Your task to perform on an android device: Go to Amazon Image 0: 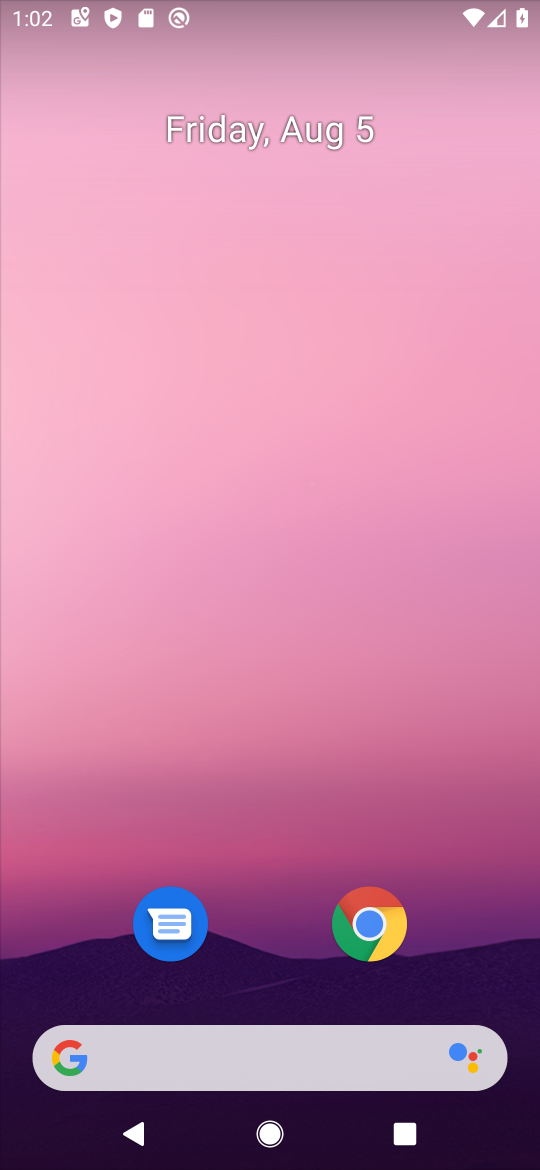
Step 0: press home button
Your task to perform on an android device: Go to Amazon Image 1: 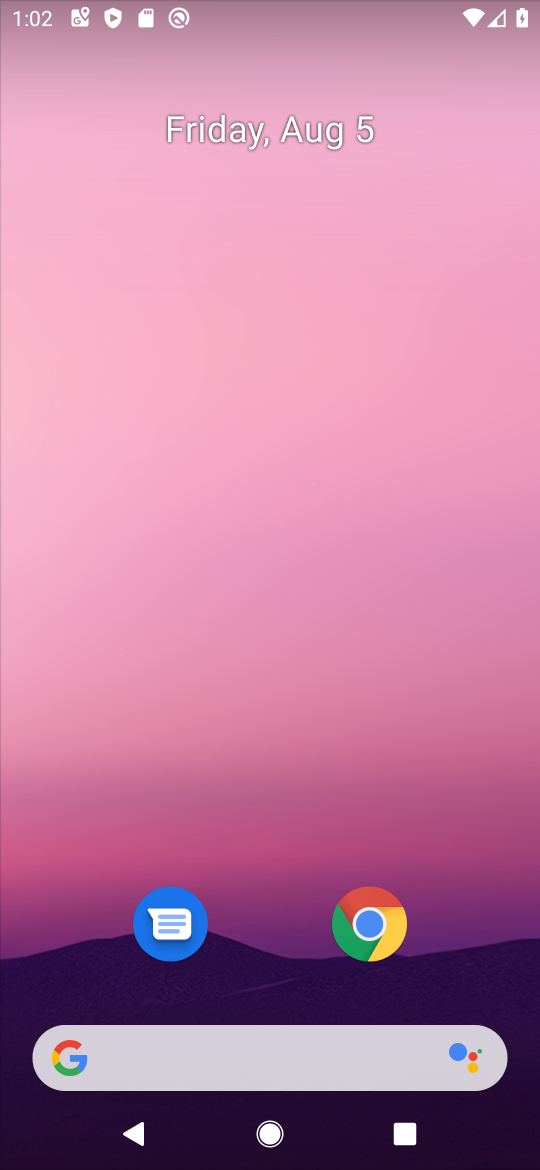
Step 1: click (375, 926)
Your task to perform on an android device: Go to Amazon Image 2: 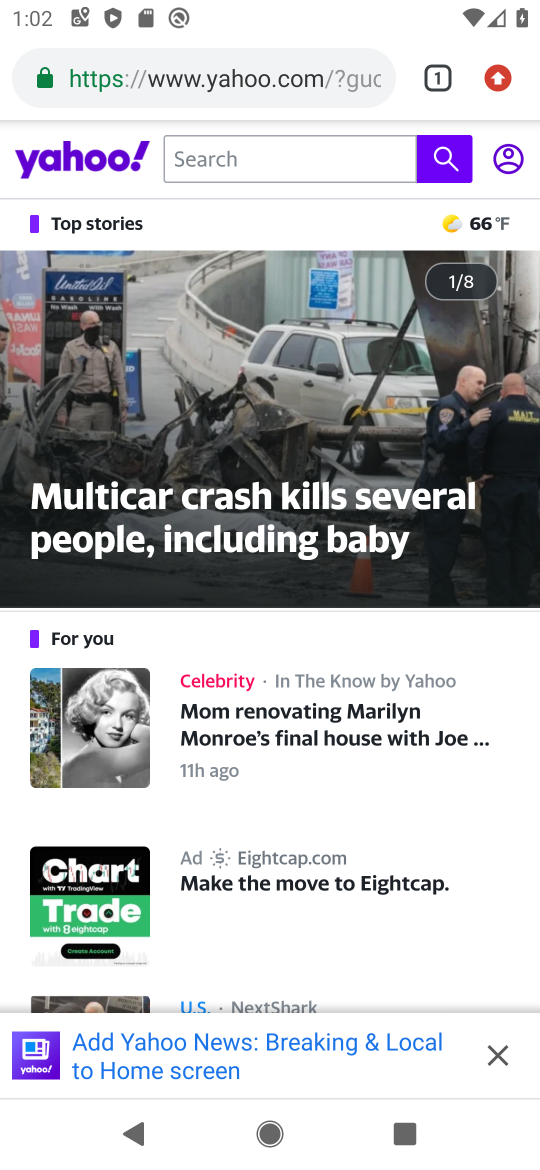
Step 2: click (335, 85)
Your task to perform on an android device: Go to Amazon Image 3: 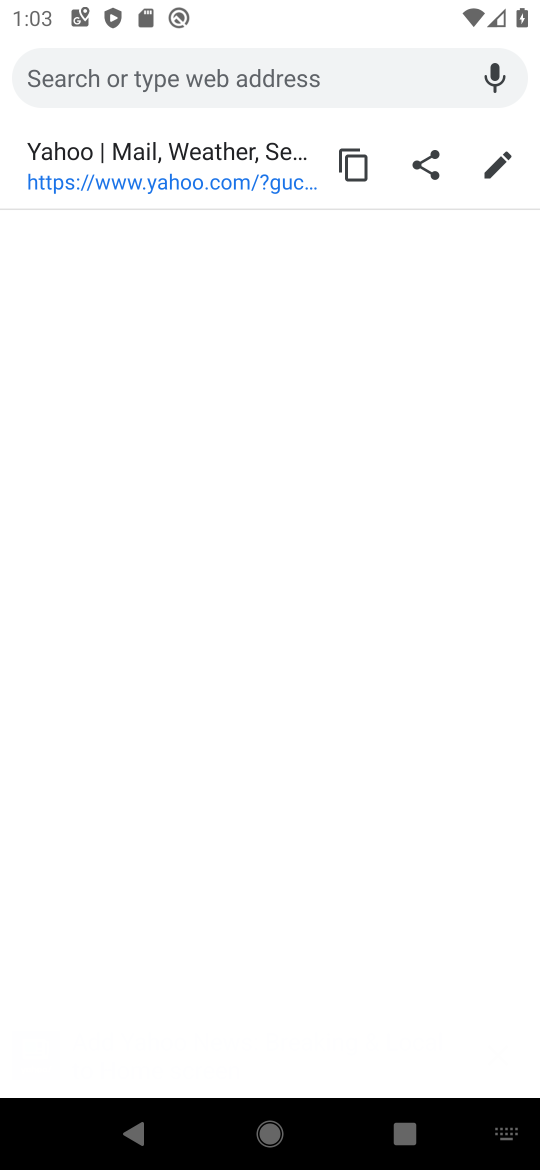
Step 3: type "Amazon"
Your task to perform on an android device: Go to Amazon Image 4: 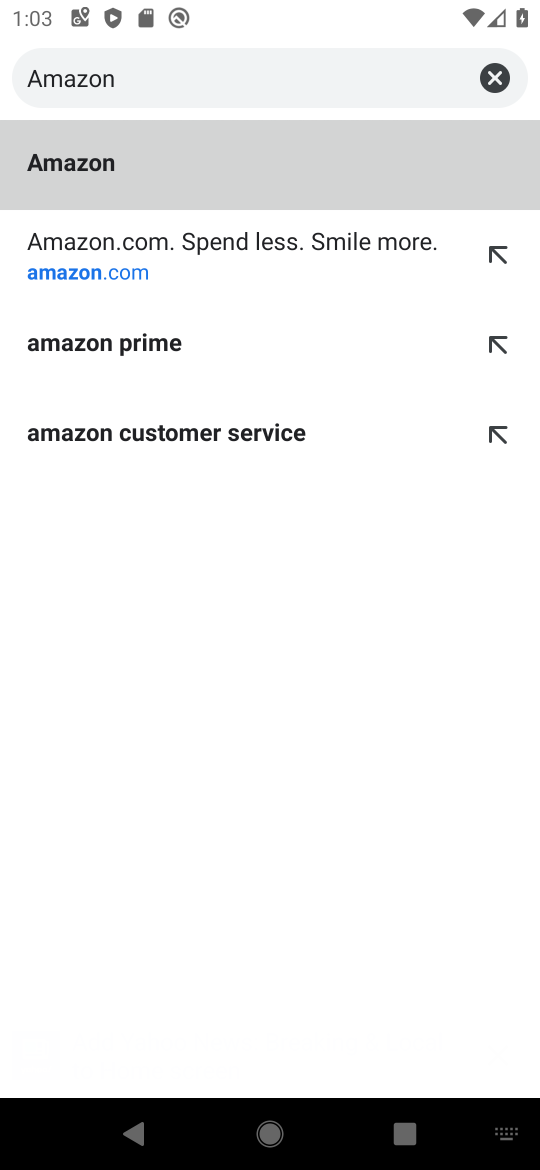
Step 4: click (121, 169)
Your task to perform on an android device: Go to Amazon Image 5: 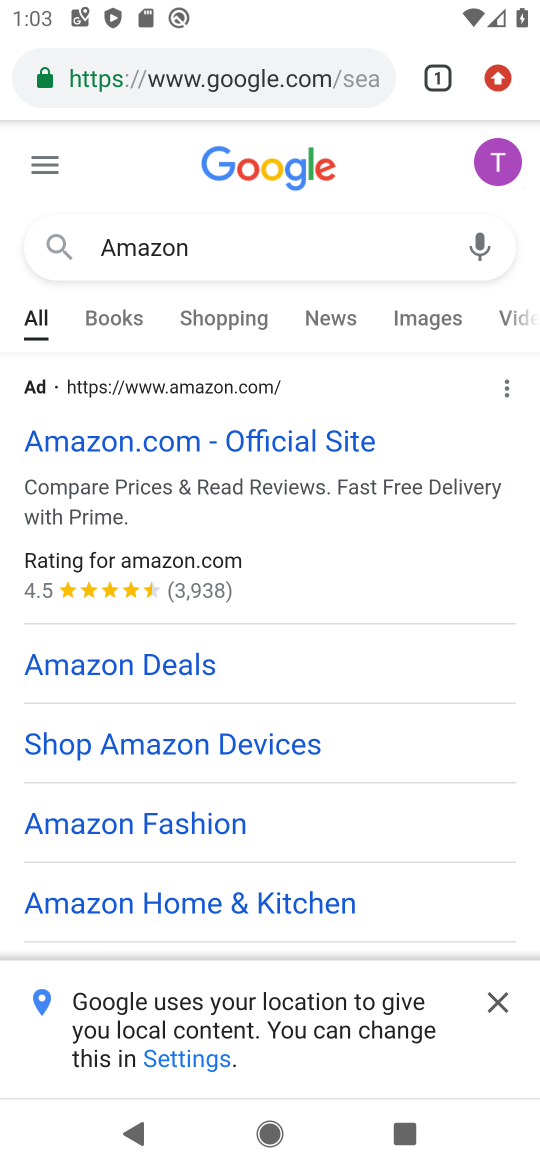
Step 5: drag from (174, 880) to (264, 408)
Your task to perform on an android device: Go to Amazon Image 6: 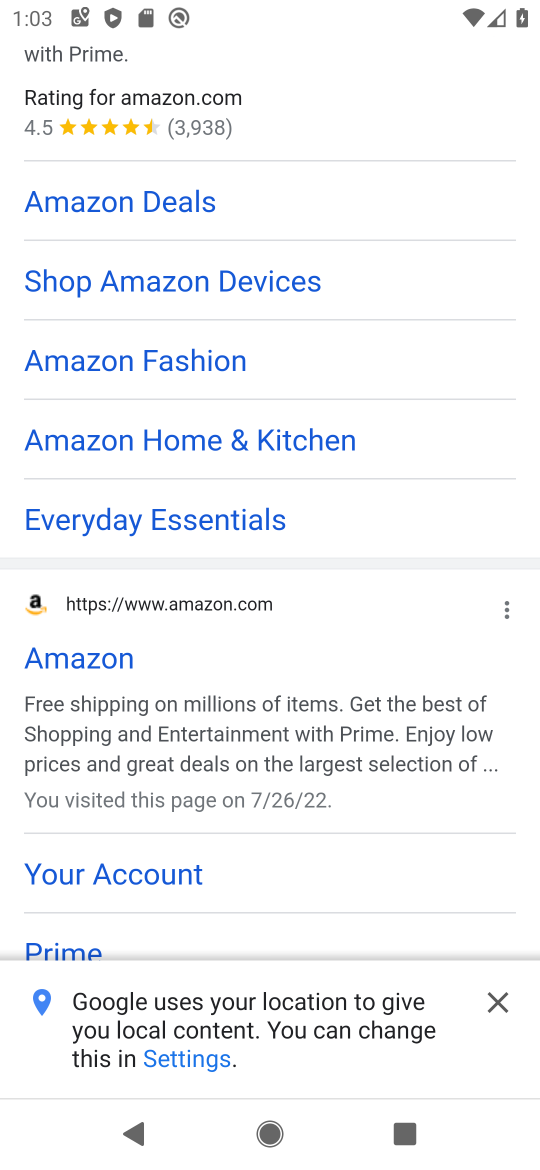
Step 6: drag from (265, 940) to (418, 615)
Your task to perform on an android device: Go to Amazon Image 7: 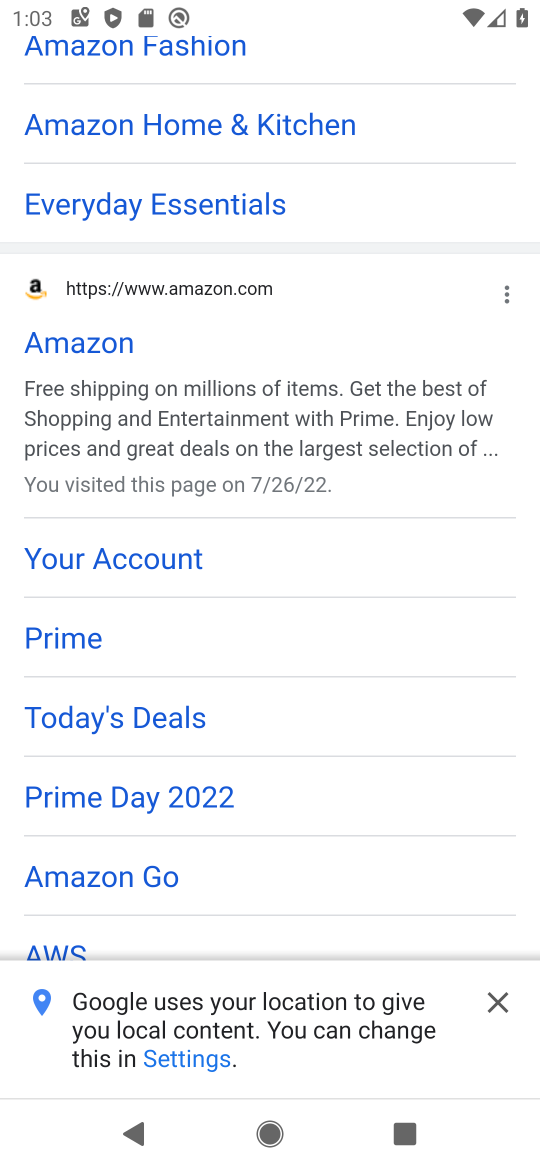
Step 7: click (120, 339)
Your task to perform on an android device: Go to Amazon Image 8: 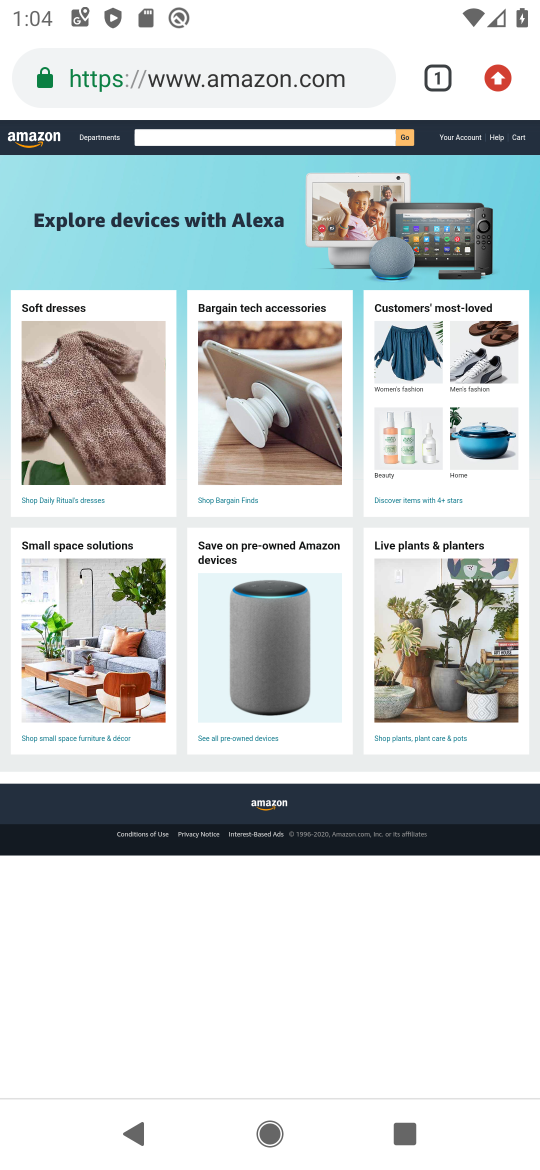
Step 8: task complete